Your task to perform on an android device: toggle notification dots Image 0: 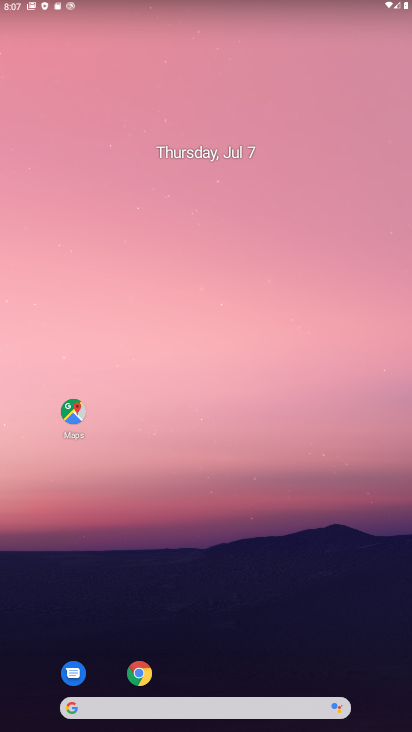
Step 0: drag from (362, 383) to (318, 52)
Your task to perform on an android device: toggle notification dots Image 1: 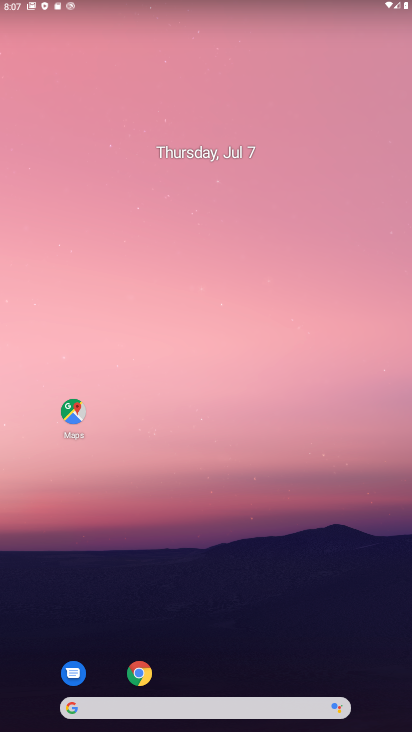
Step 1: drag from (383, 662) to (293, 12)
Your task to perform on an android device: toggle notification dots Image 2: 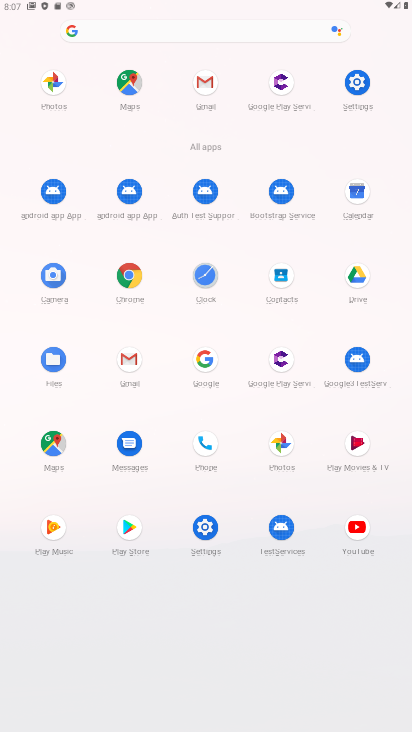
Step 2: drag from (349, 111) to (242, 279)
Your task to perform on an android device: toggle notification dots Image 3: 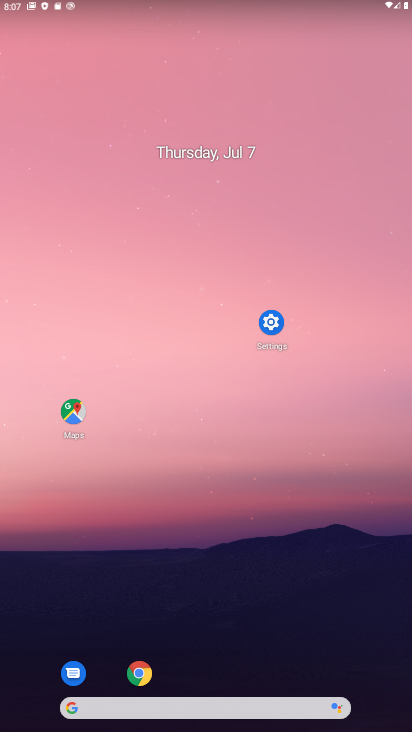
Step 3: click (277, 317)
Your task to perform on an android device: toggle notification dots Image 4: 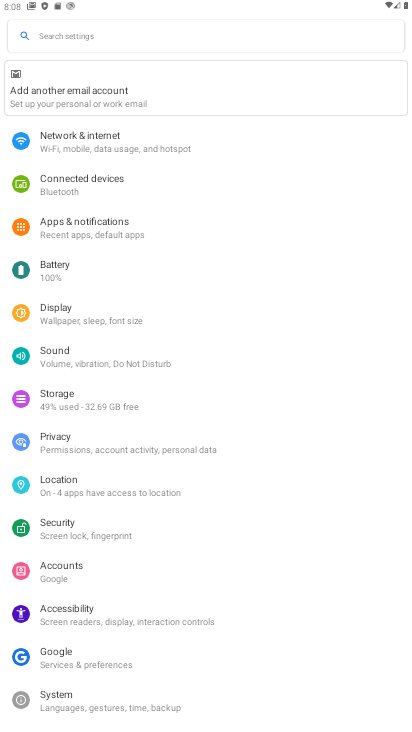
Step 4: click (88, 231)
Your task to perform on an android device: toggle notification dots Image 5: 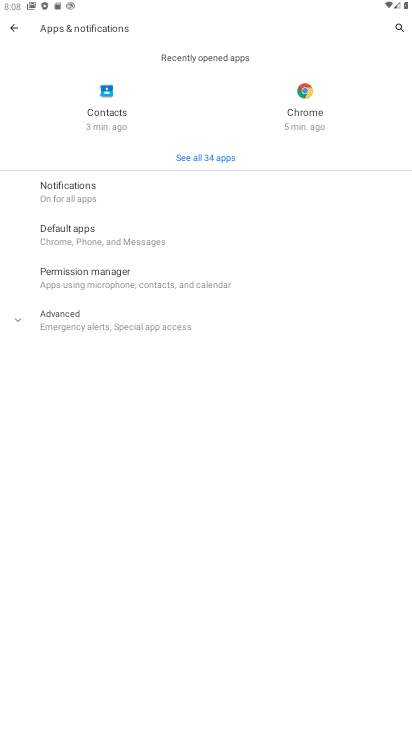
Step 5: click (90, 196)
Your task to perform on an android device: toggle notification dots Image 6: 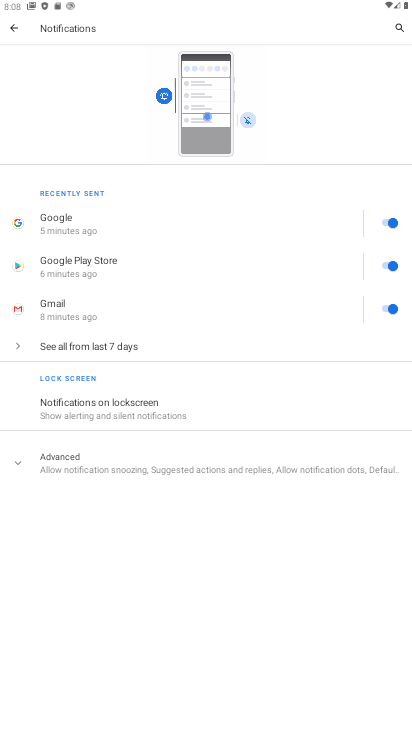
Step 6: click (25, 461)
Your task to perform on an android device: toggle notification dots Image 7: 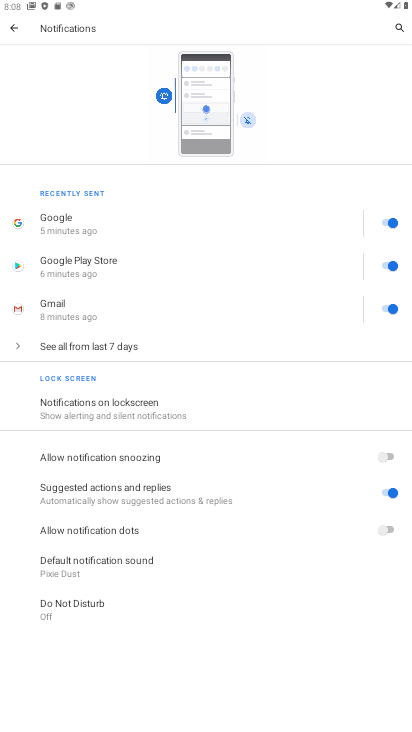
Step 7: click (395, 530)
Your task to perform on an android device: toggle notification dots Image 8: 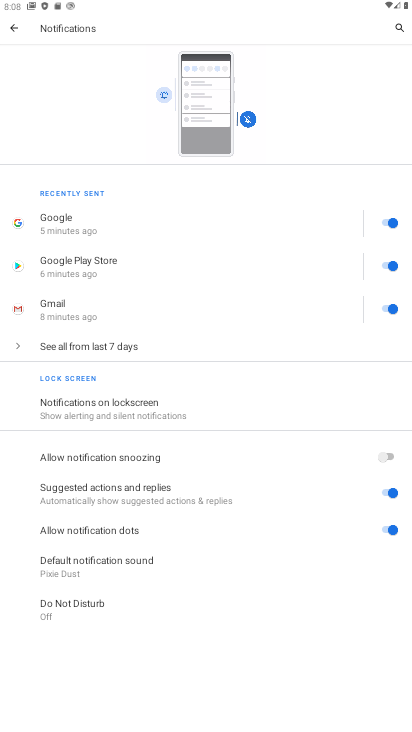
Step 8: task complete